Your task to perform on an android device: toggle javascript in the chrome app Image 0: 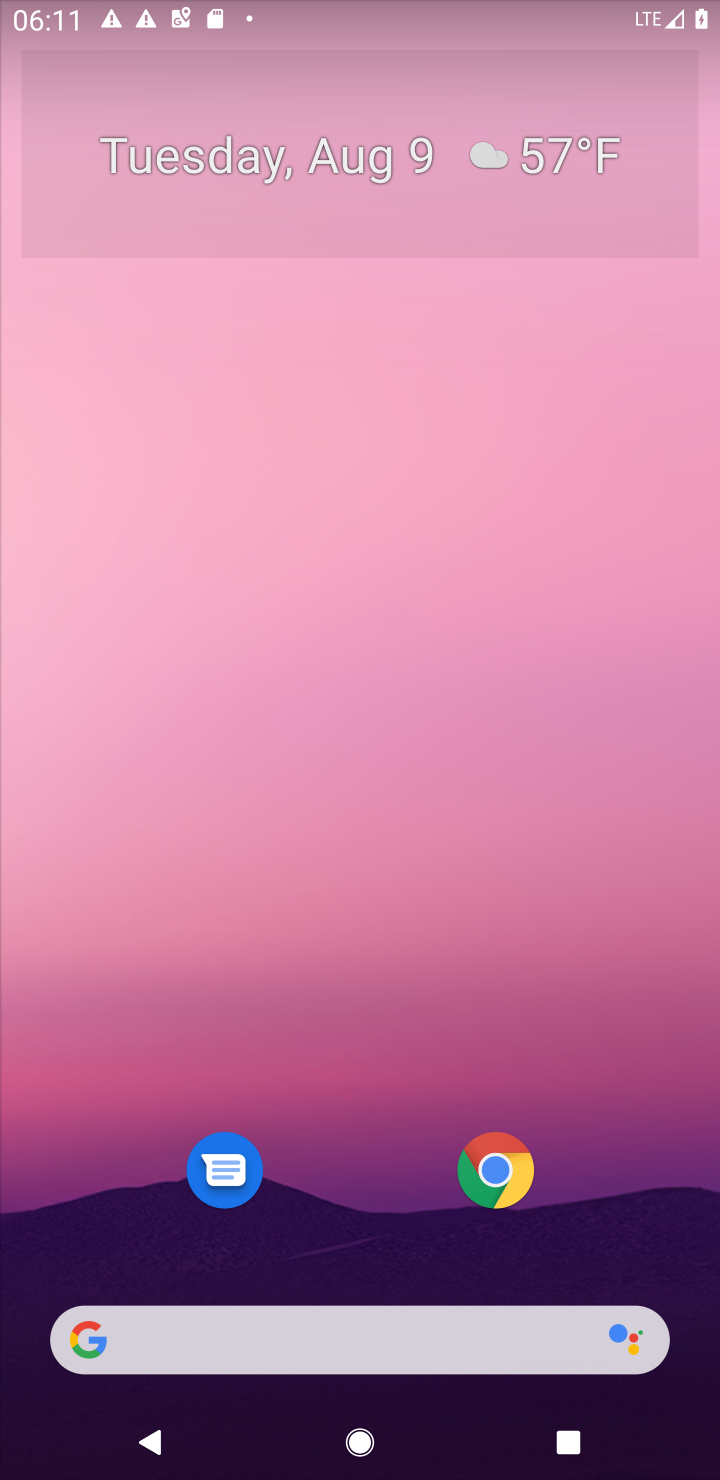
Step 0: press home button
Your task to perform on an android device: toggle javascript in the chrome app Image 1: 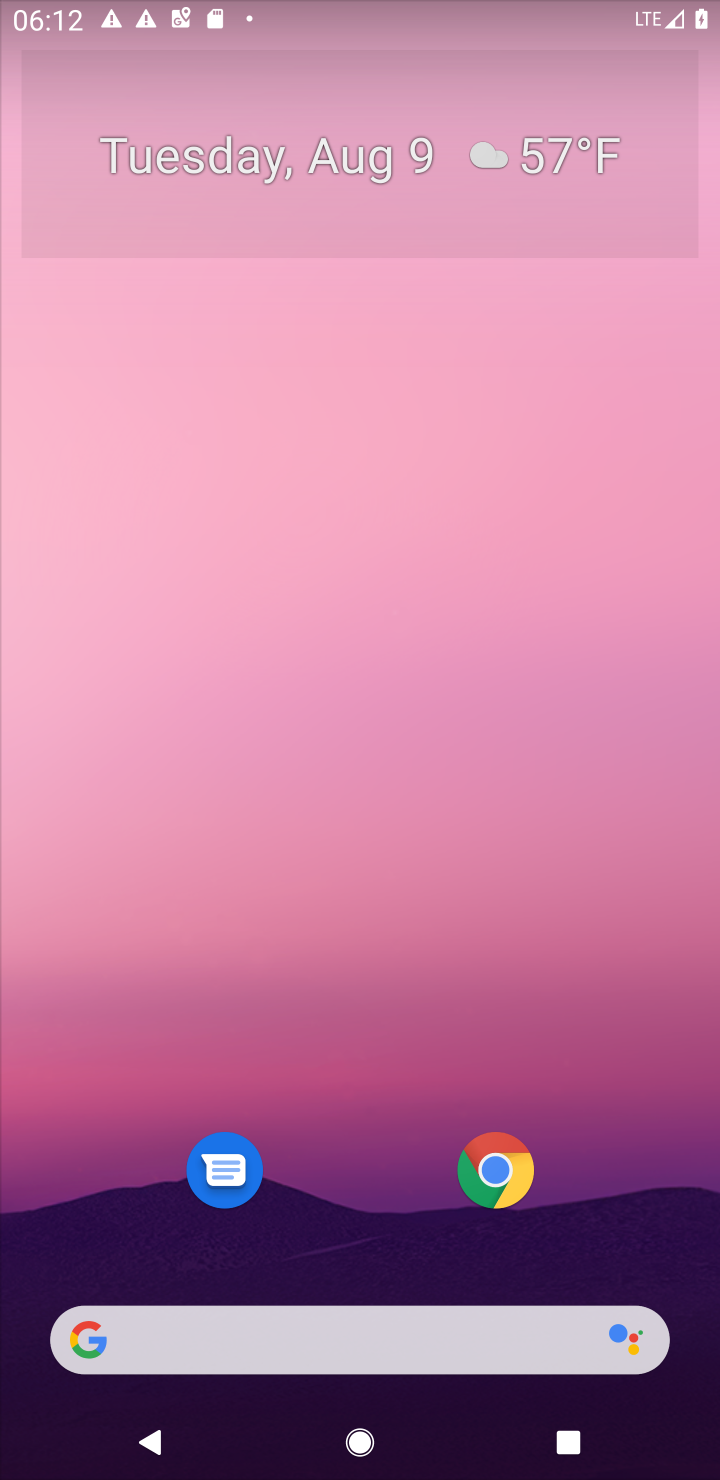
Step 1: click (497, 1168)
Your task to perform on an android device: toggle javascript in the chrome app Image 2: 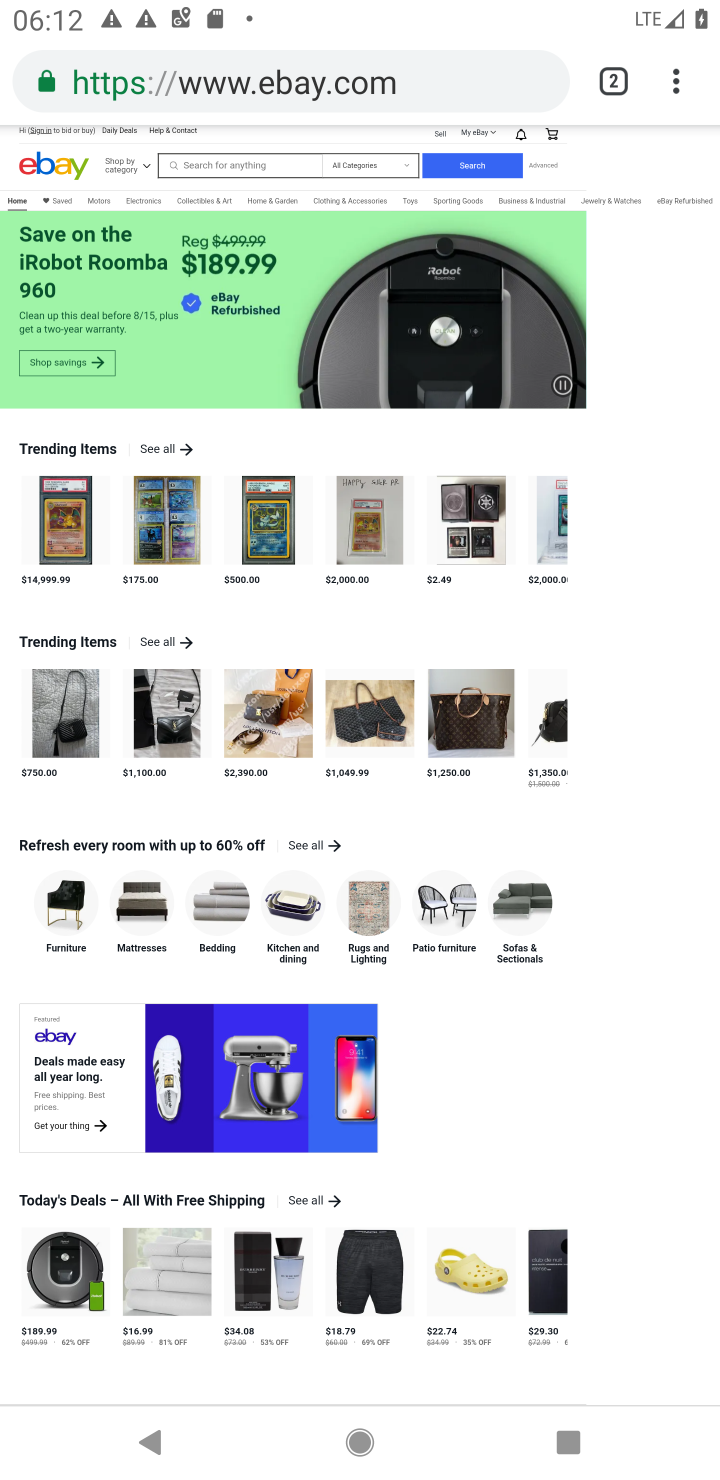
Step 2: click (614, 80)
Your task to perform on an android device: toggle javascript in the chrome app Image 3: 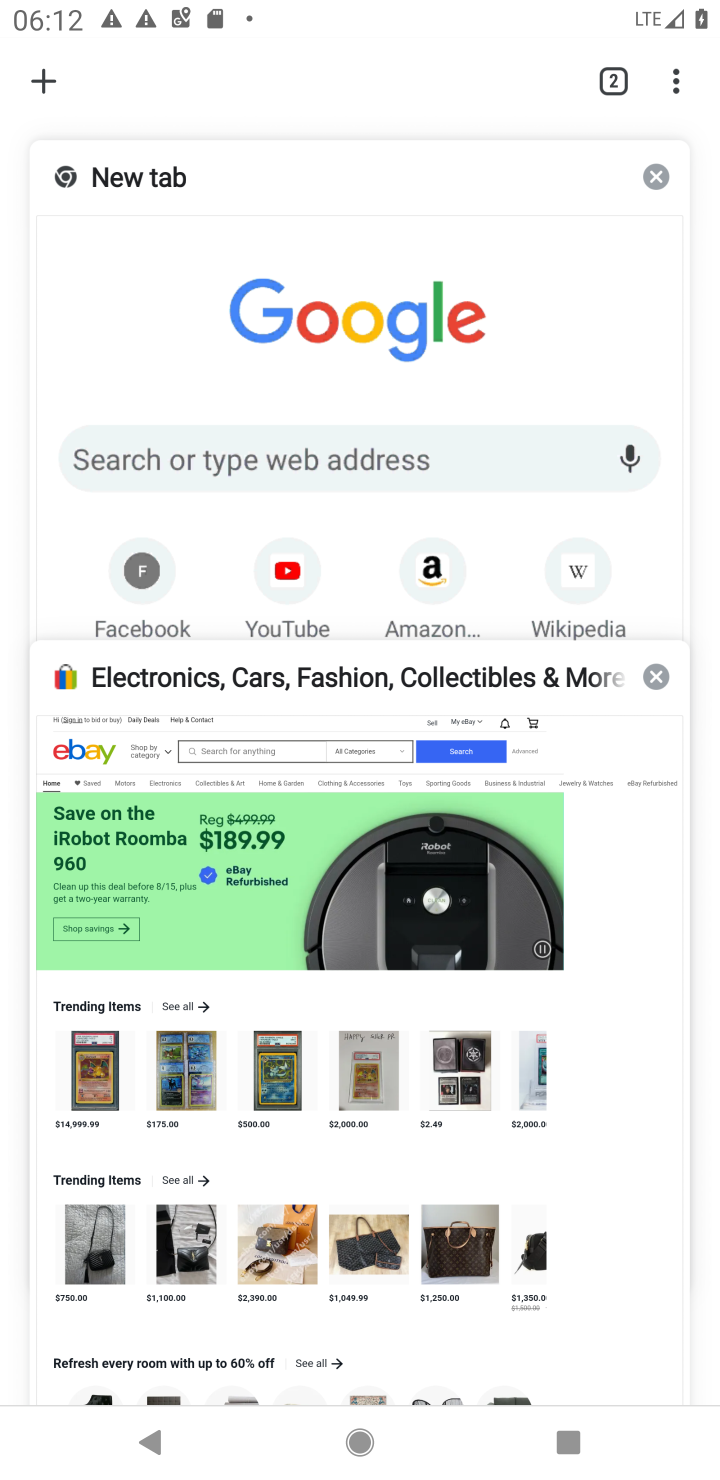
Step 3: click (48, 88)
Your task to perform on an android device: toggle javascript in the chrome app Image 4: 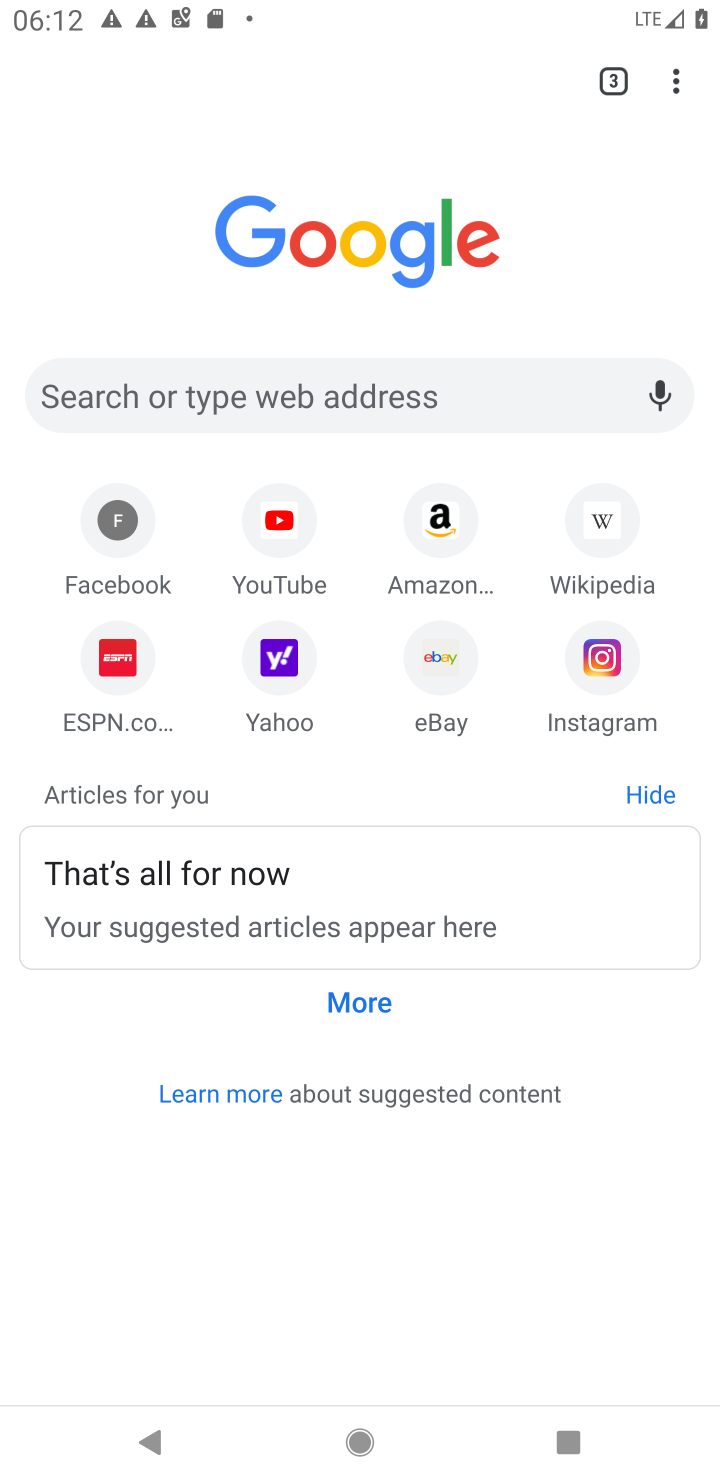
Step 4: drag from (668, 87) to (398, 695)
Your task to perform on an android device: toggle javascript in the chrome app Image 5: 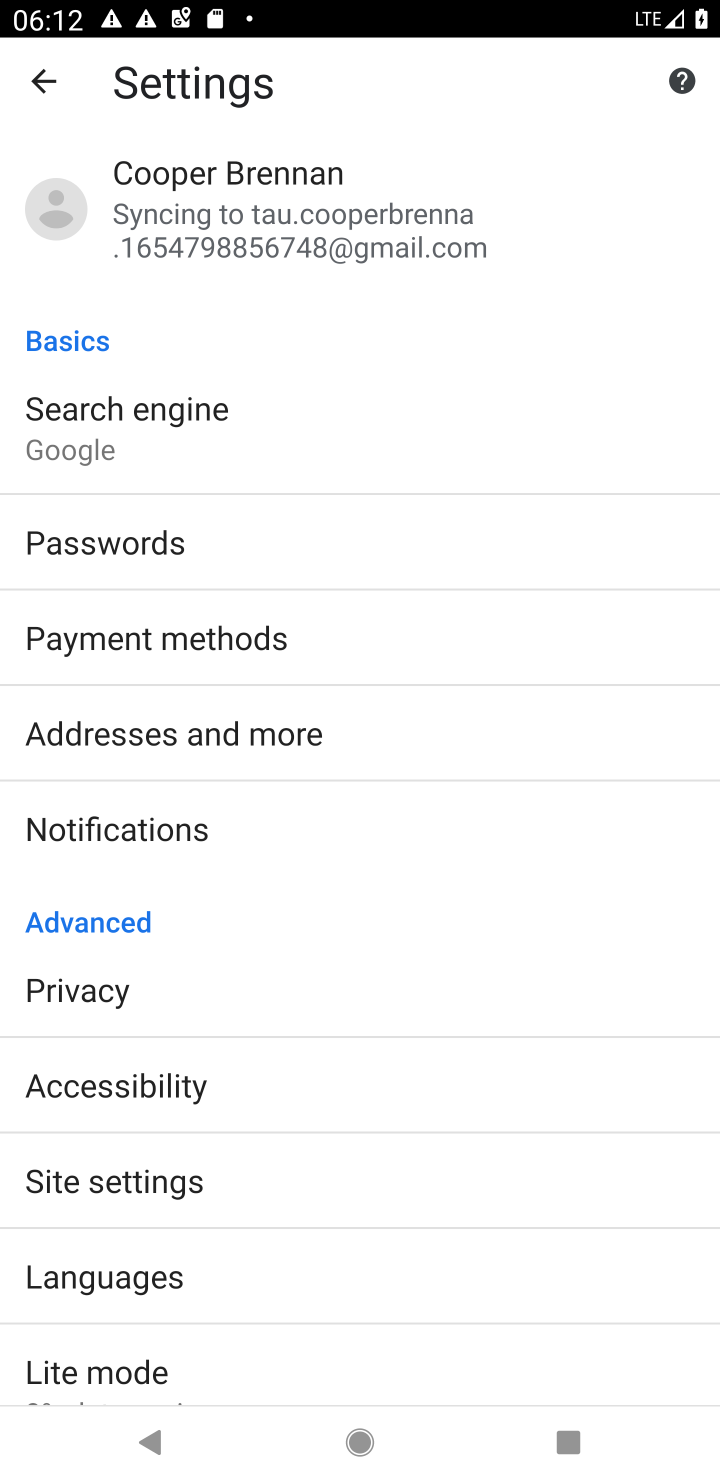
Step 5: click (89, 1175)
Your task to perform on an android device: toggle javascript in the chrome app Image 6: 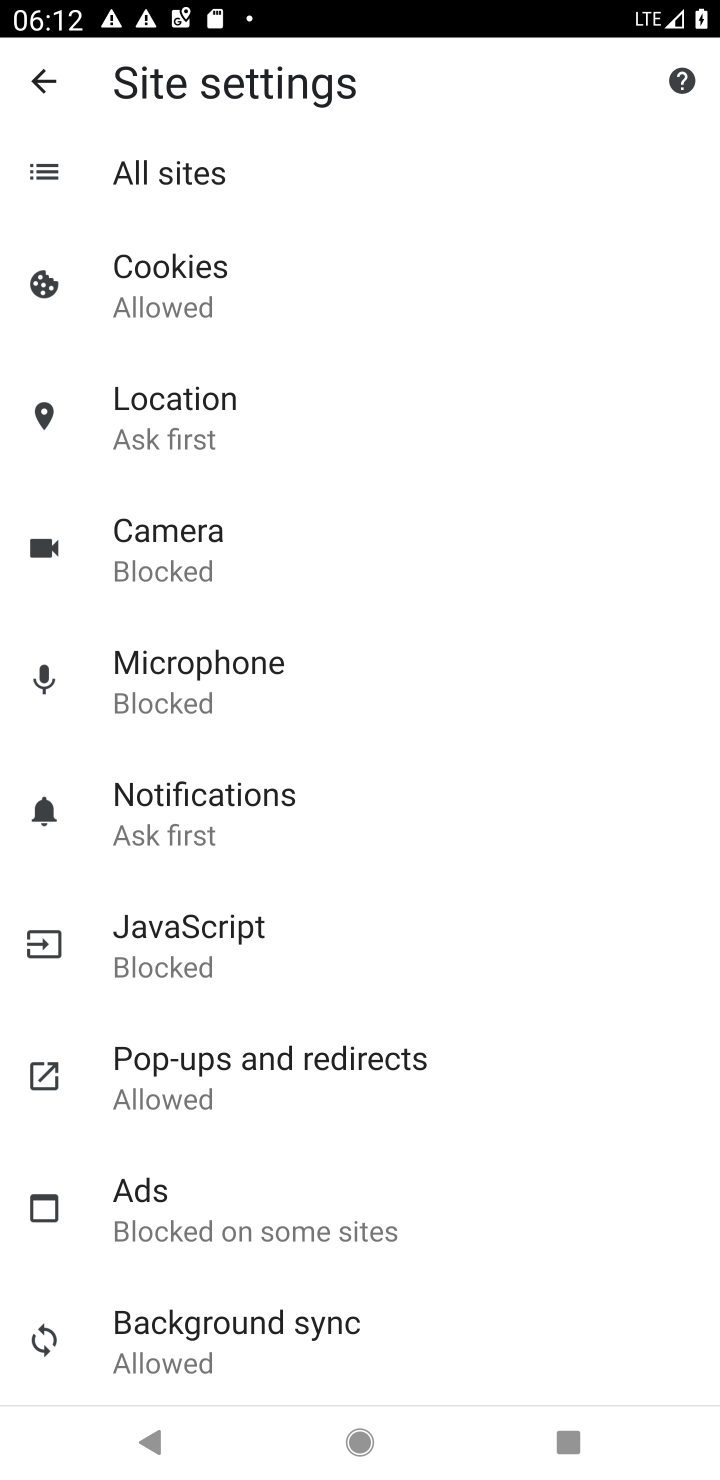
Step 6: click (204, 955)
Your task to perform on an android device: toggle javascript in the chrome app Image 7: 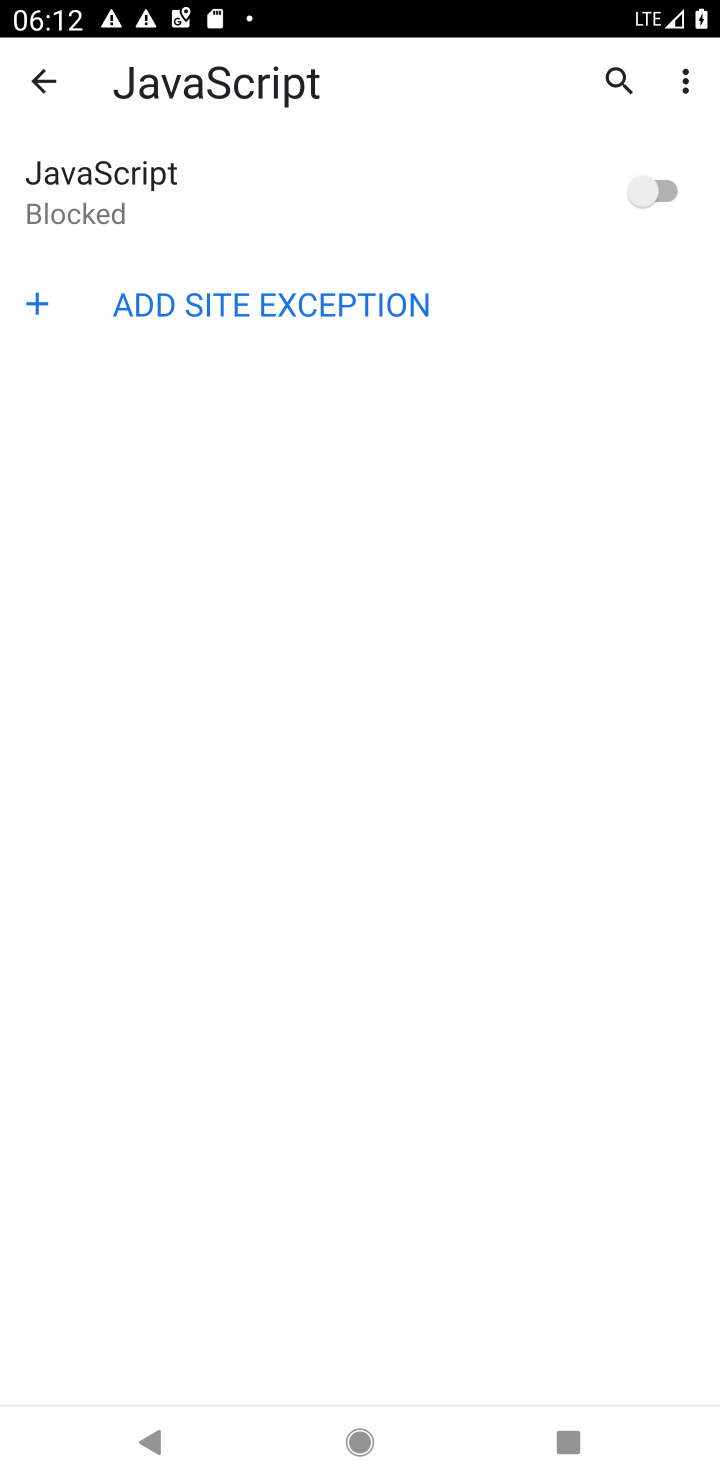
Step 7: click (654, 198)
Your task to perform on an android device: toggle javascript in the chrome app Image 8: 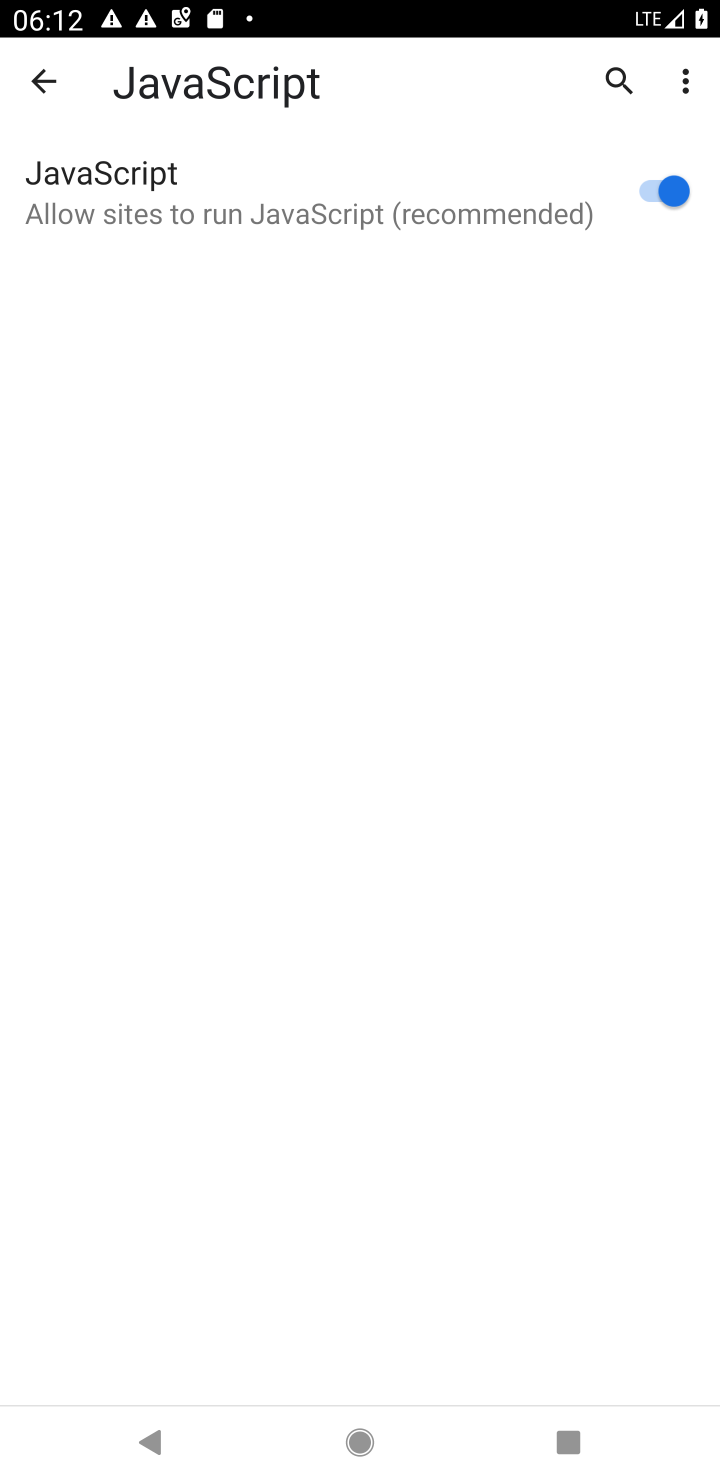
Step 8: task complete